Your task to perform on an android device: Check the weather Image 0: 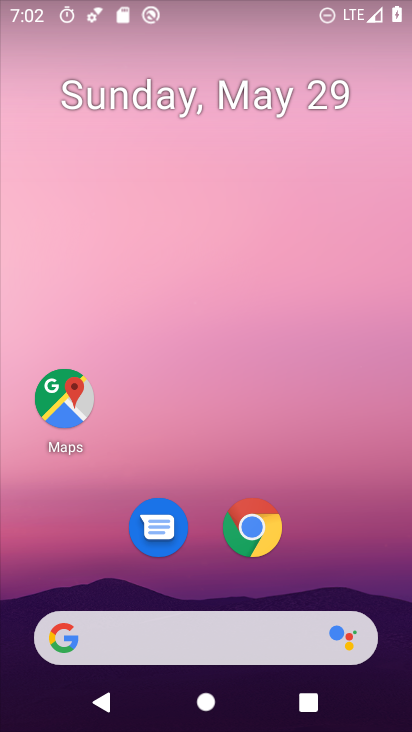
Step 0: drag from (384, 605) to (279, 67)
Your task to perform on an android device: Check the weather Image 1: 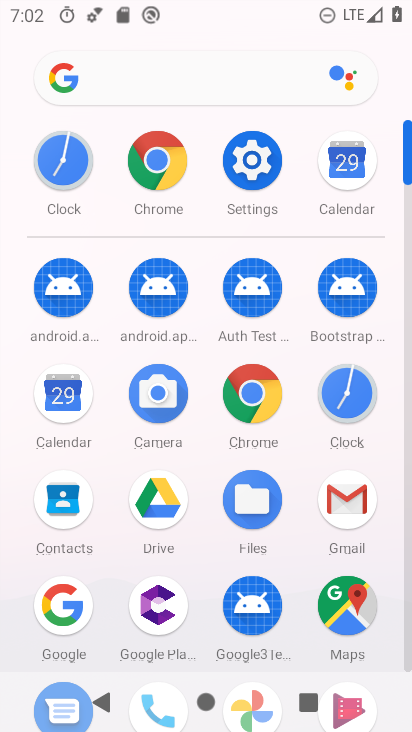
Step 1: click (85, 595)
Your task to perform on an android device: Check the weather Image 2: 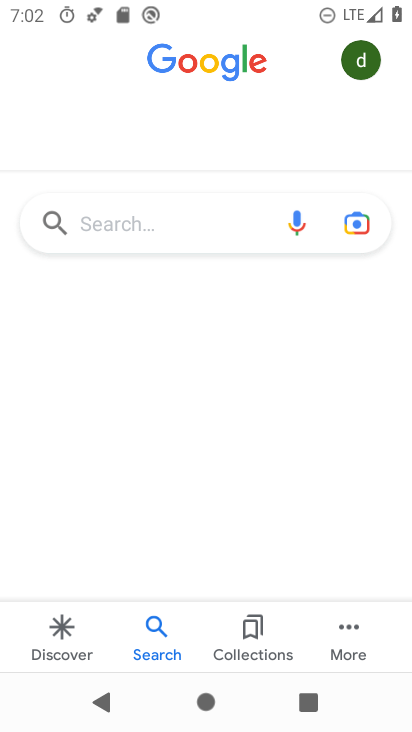
Step 2: click (131, 234)
Your task to perform on an android device: Check the weather Image 3: 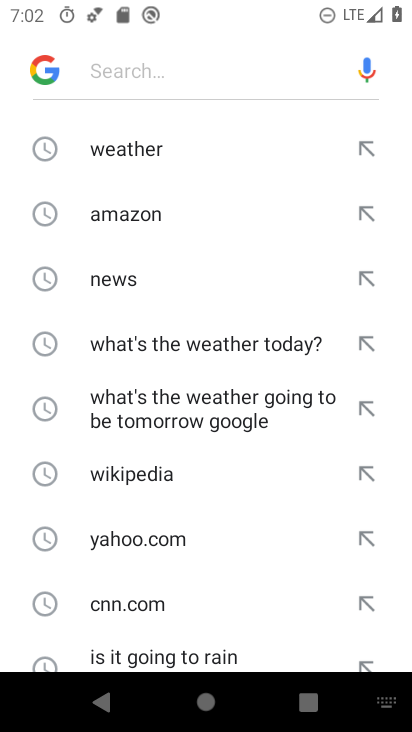
Step 3: click (195, 151)
Your task to perform on an android device: Check the weather Image 4: 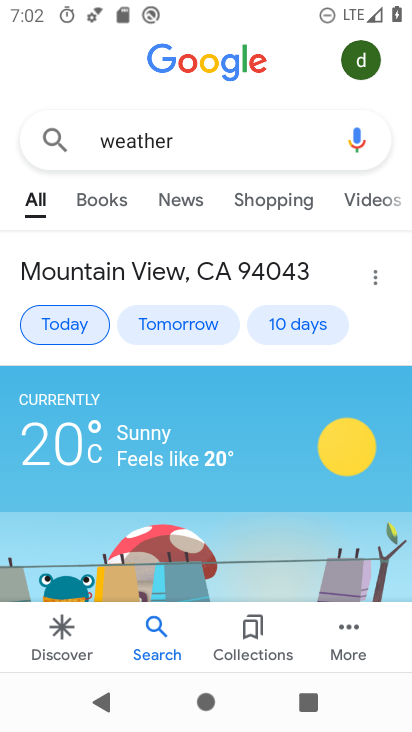
Step 4: task complete